Your task to perform on an android device: What's the weather like in Seoul? Image 0: 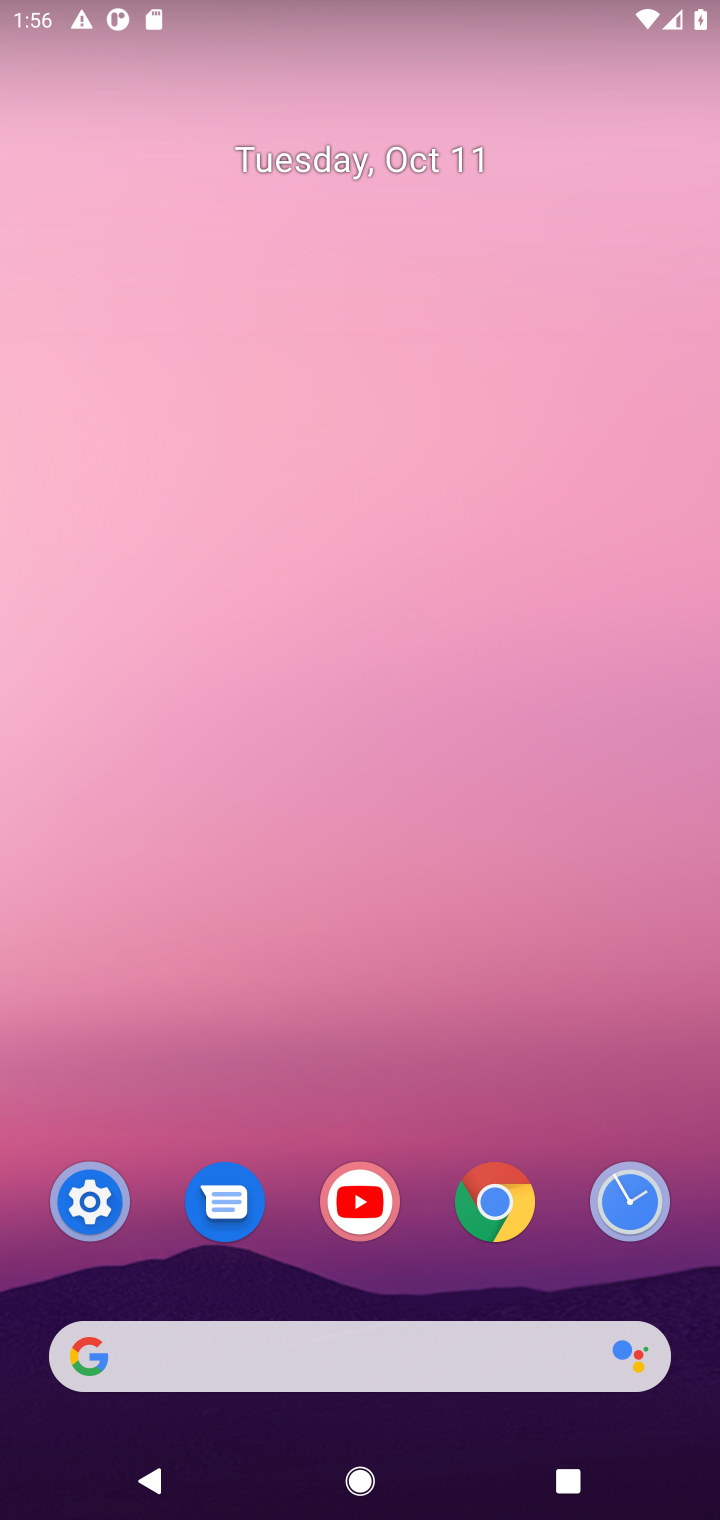
Step 0: click (502, 1208)
Your task to perform on an android device: What's the weather like in Seoul? Image 1: 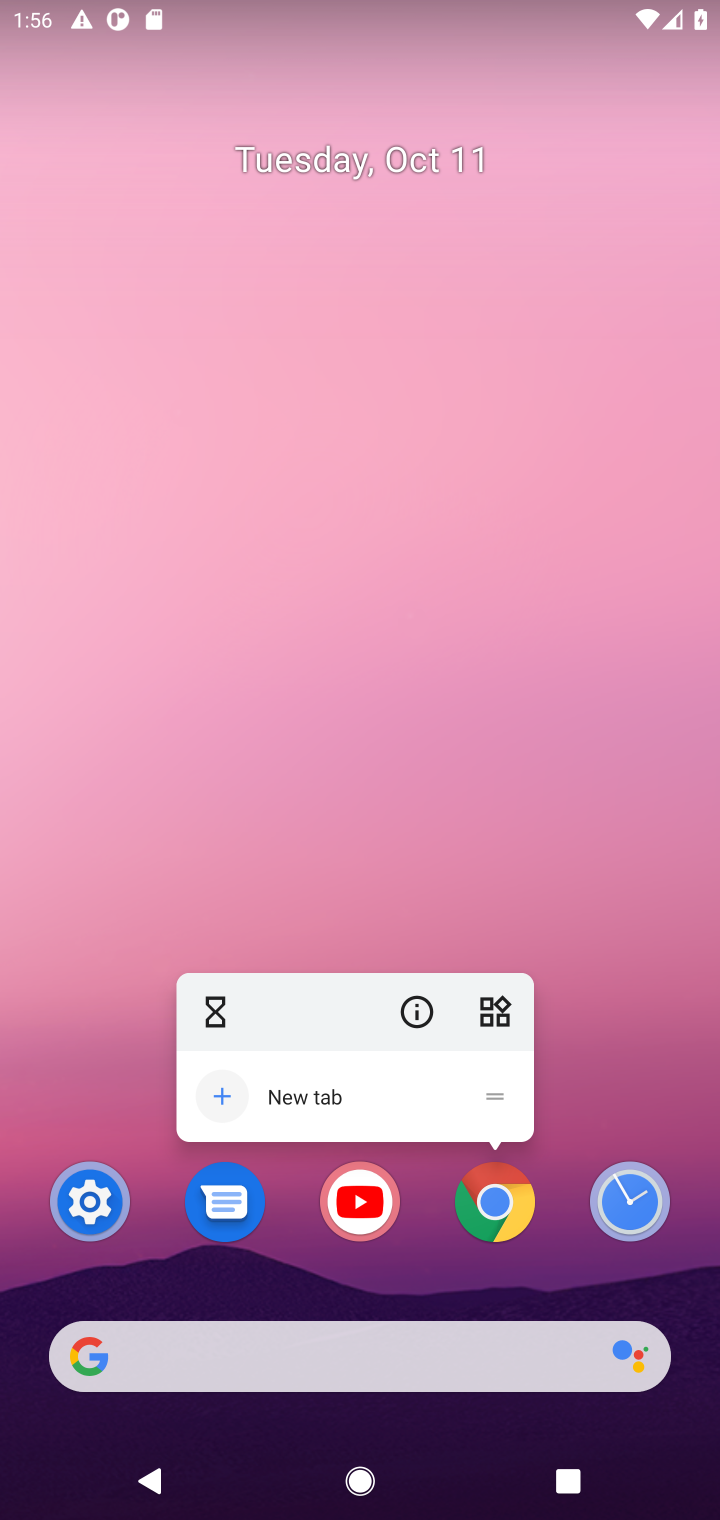
Step 1: click (502, 1216)
Your task to perform on an android device: What's the weather like in Seoul? Image 2: 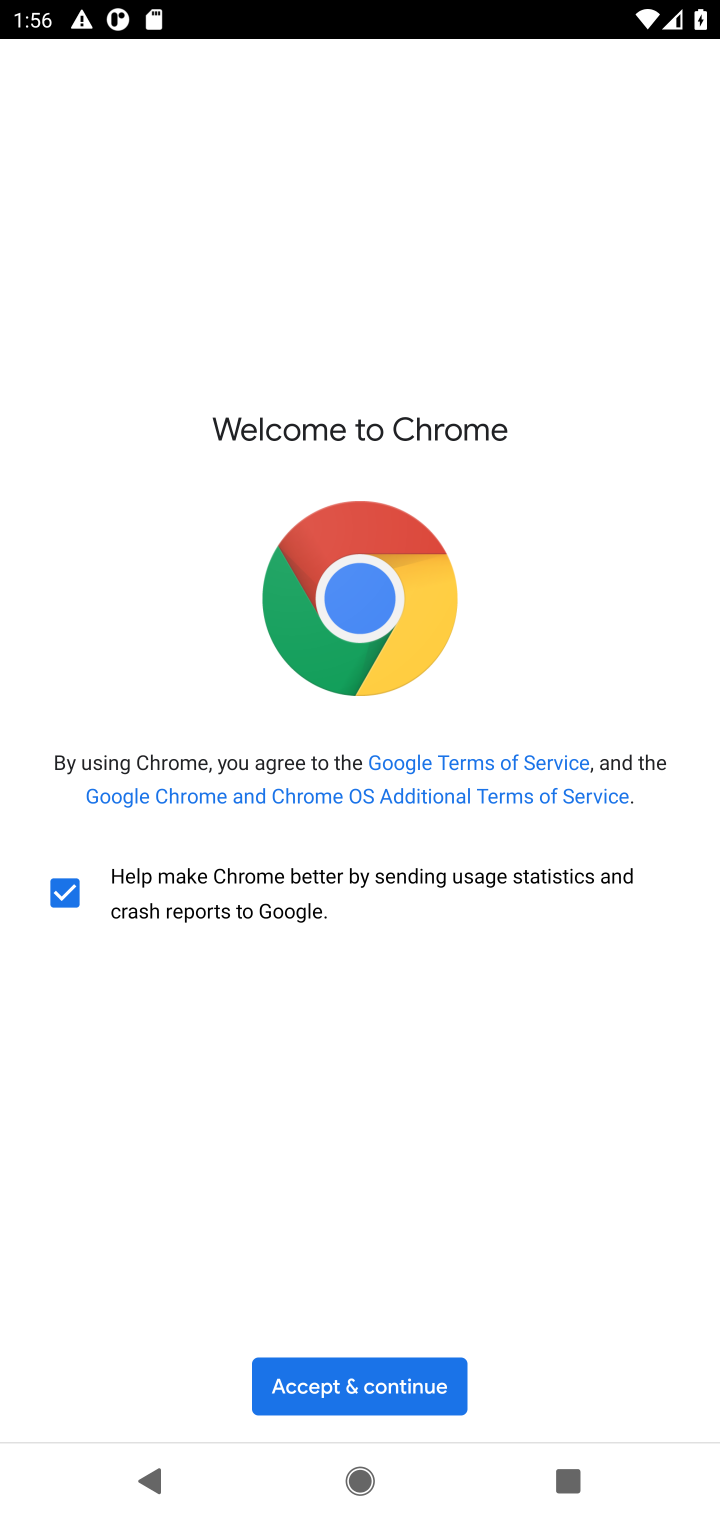
Step 2: click (311, 1394)
Your task to perform on an android device: What's the weather like in Seoul? Image 3: 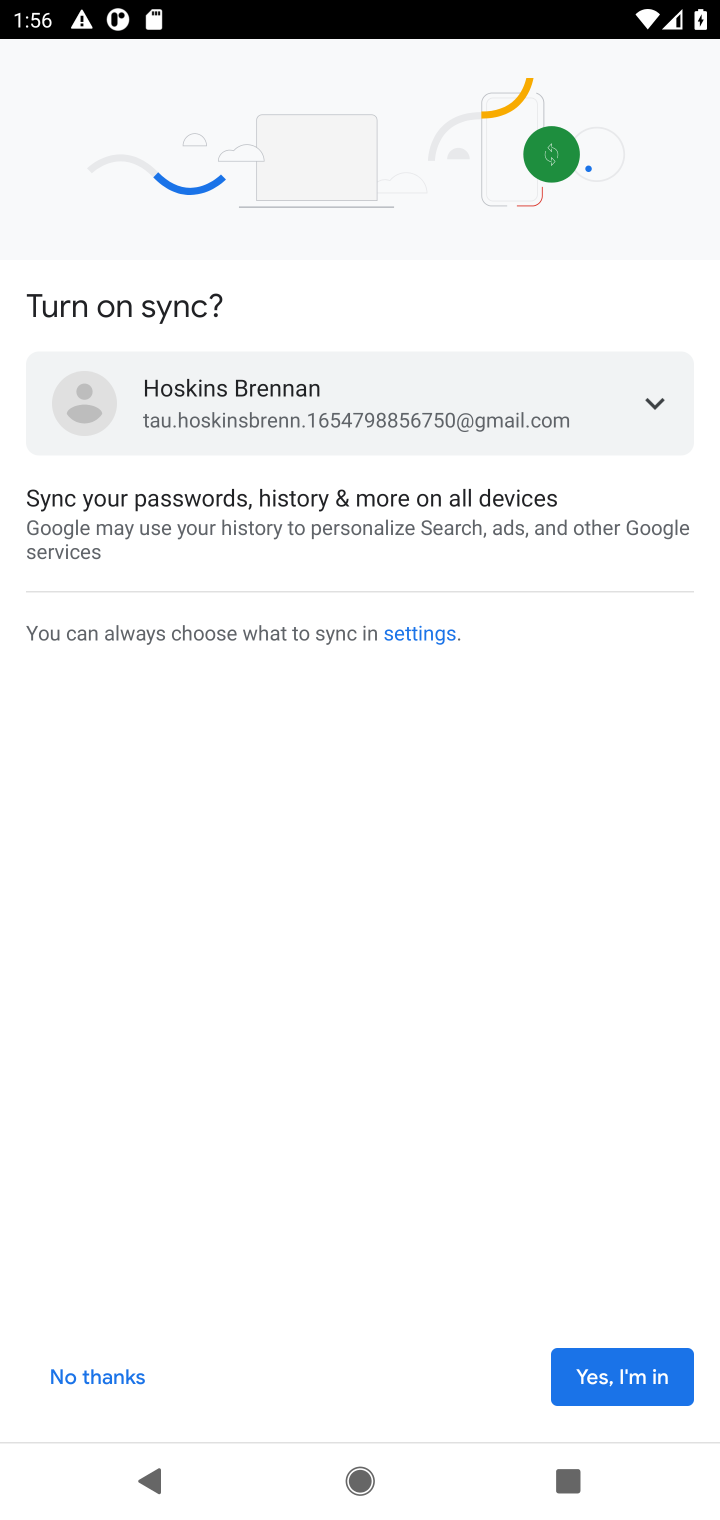
Step 3: click (594, 1377)
Your task to perform on an android device: What's the weather like in Seoul? Image 4: 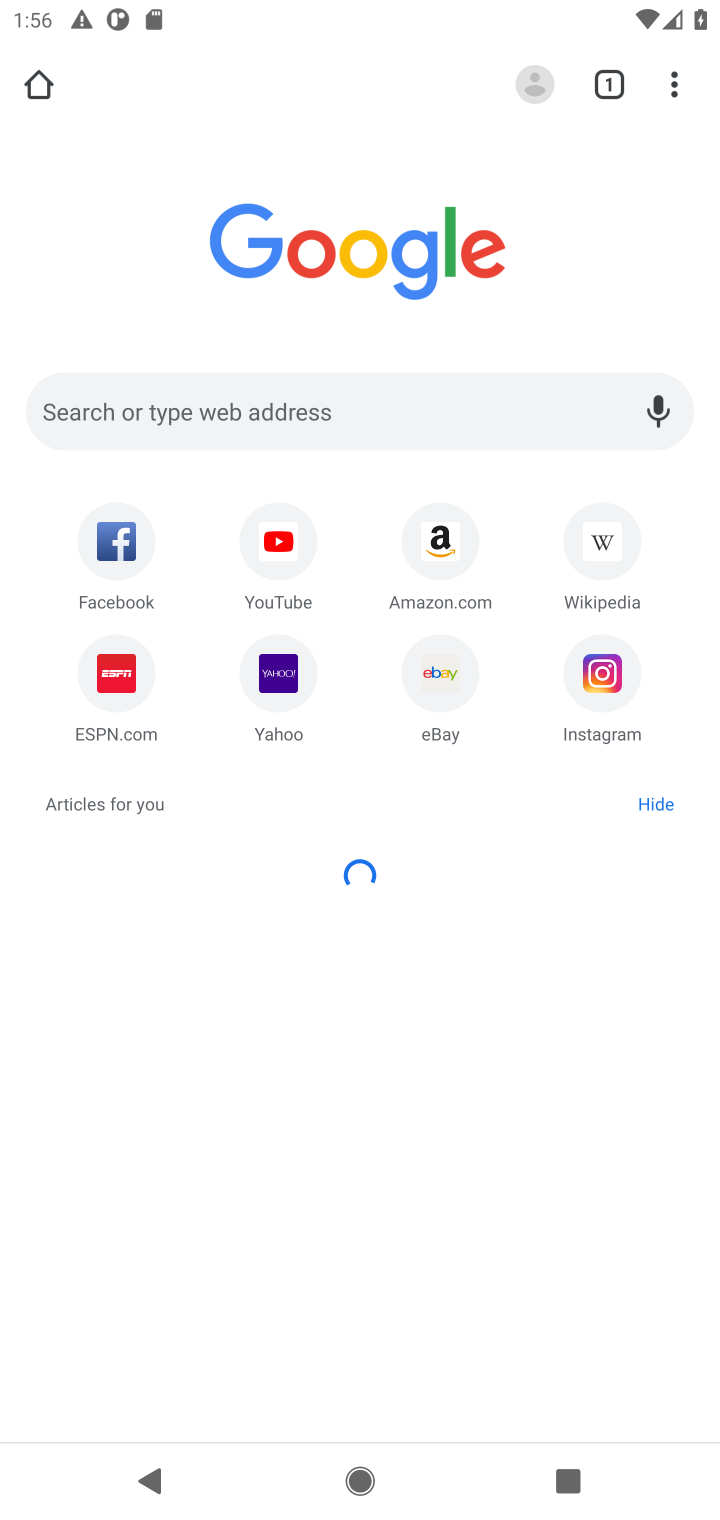
Step 4: click (405, 390)
Your task to perform on an android device: What's the weather like in Seoul? Image 5: 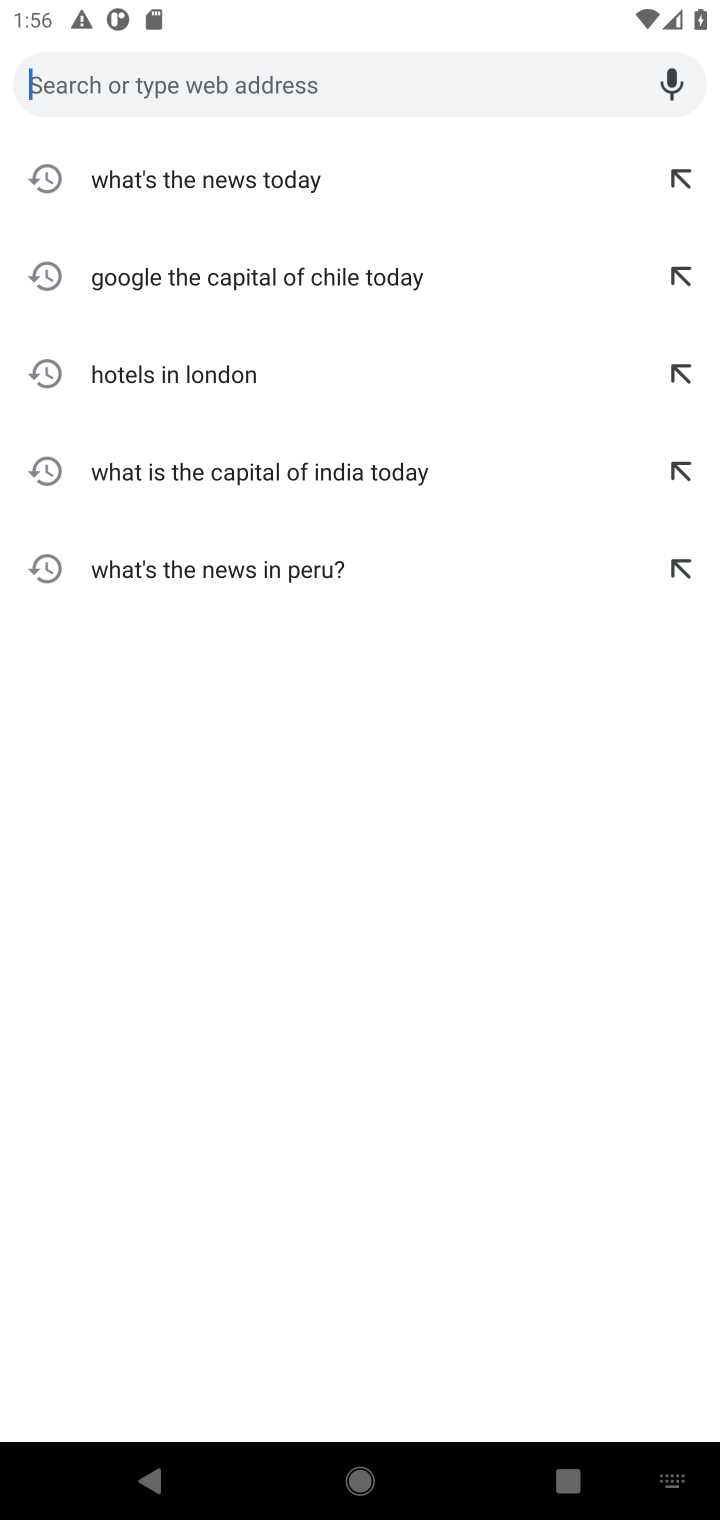
Step 5: type " weather like in Seoul"
Your task to perform on an android device: What's the weather like in Seoul? Image 6: 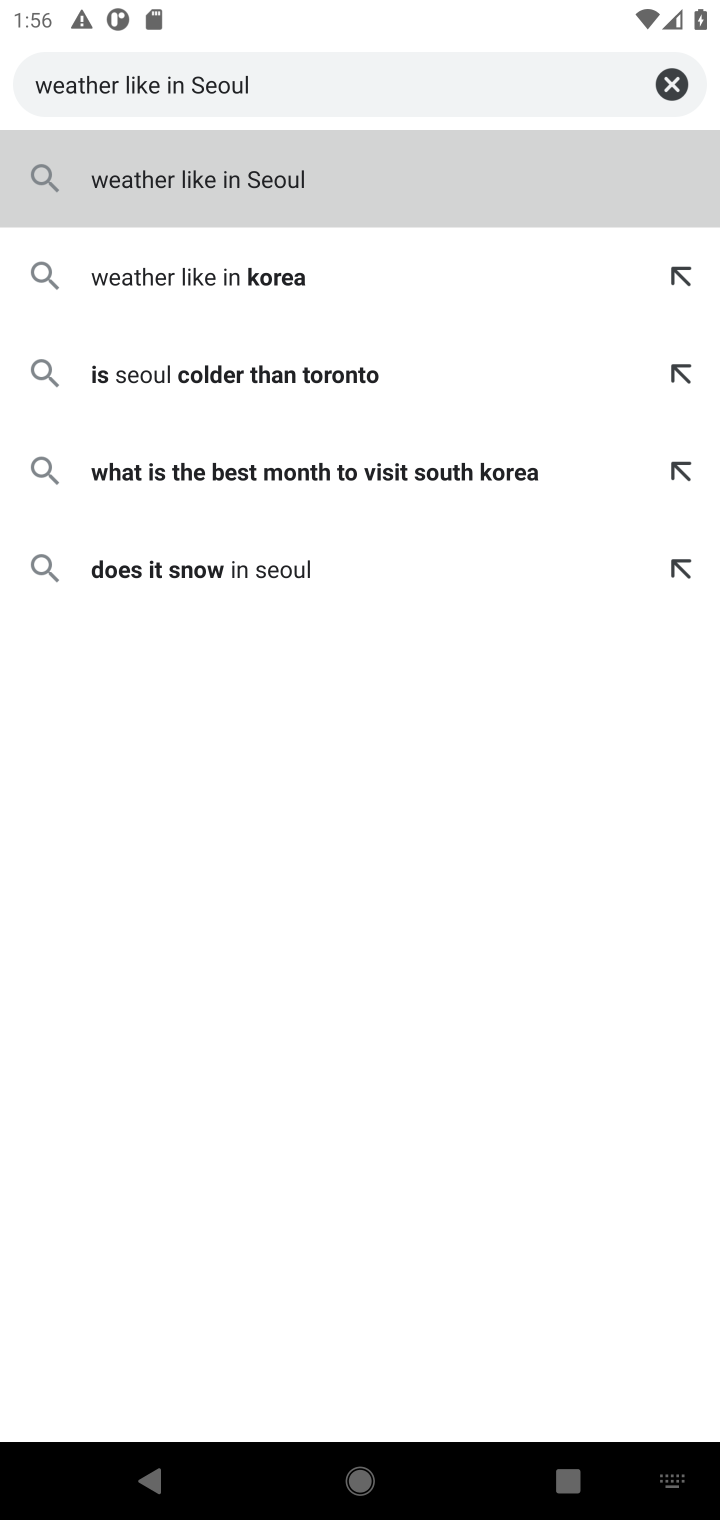
Step 6: press enter
Your task to perform on an android device: What's the weather like in Seoul? Image 7: 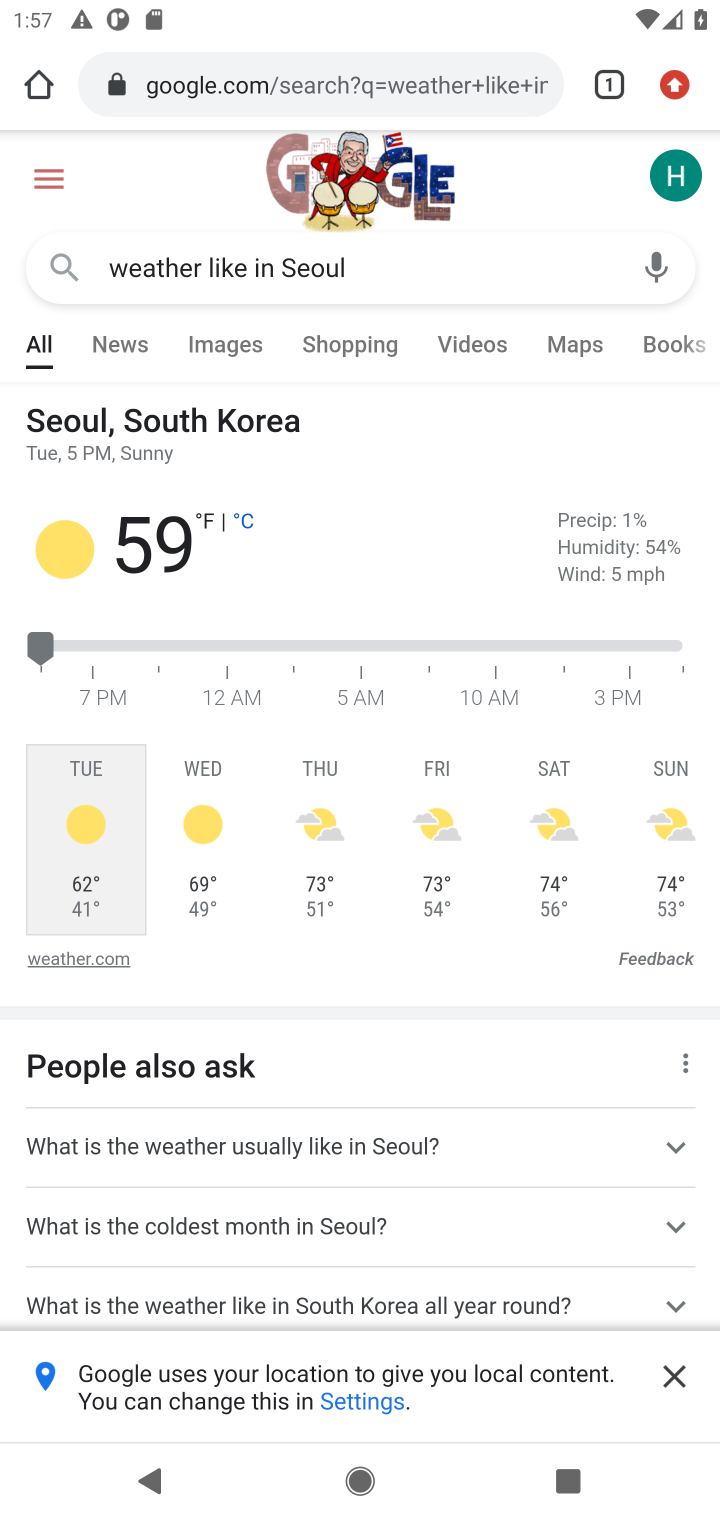
Step 7: task complete